Your task to perform on an android device: Open the calendar app, open the side menu, and click the "Day" option Image 0: 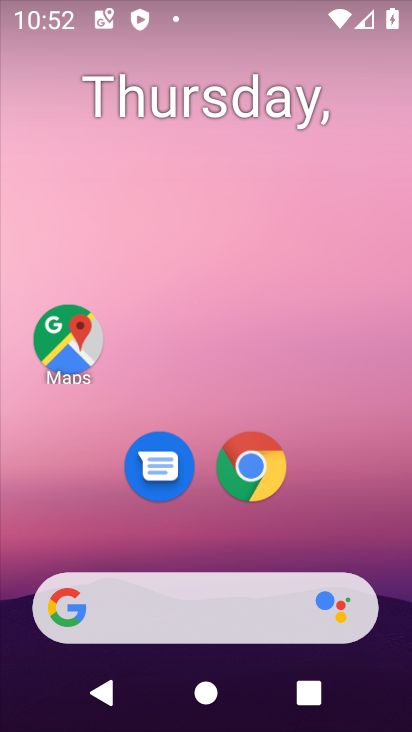
Step 0: drag from (213, 554) to (188, 0)
Your task to perform on an android device: Open the calendar app, open the side menu, and click the "Day" option Image 1: 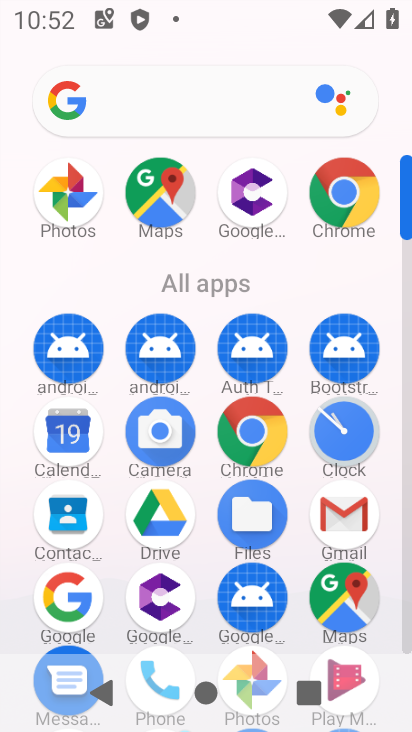
Step 1: click (89, 458)
Your task to perform on an android device: Open the calendar app, open the side menu, and click the "Day" option Image 2: 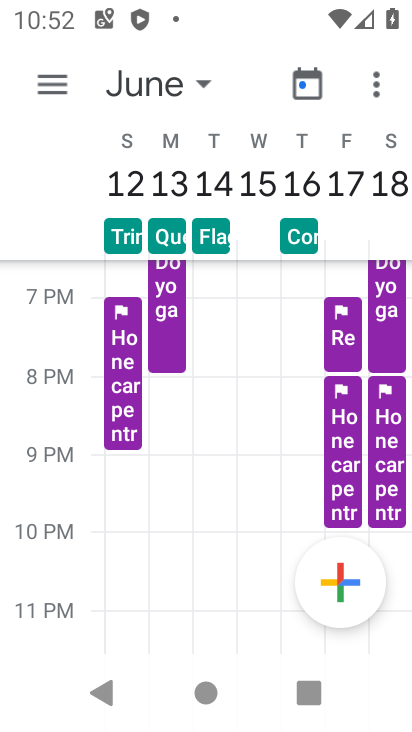
Step 2: click (61, 82)
Your task to perform on an android device: Open the calendar app, open the side menu, and click the "Day" option Image 3: 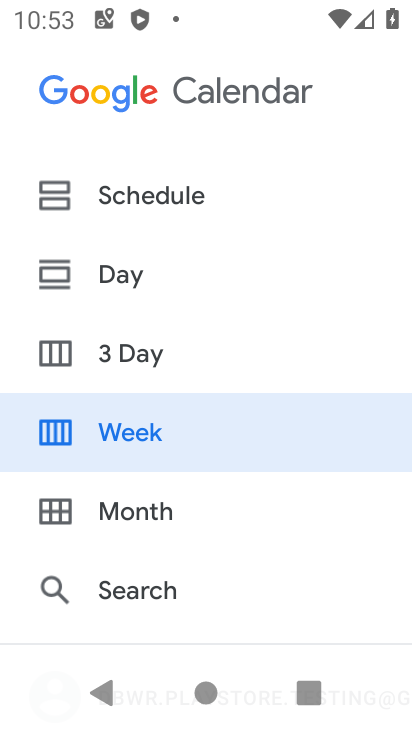
Step 3: click (125, 275)
Your task to perform on an android device: Open the calendar app, open the side menu, and click the "Day" option Image 4: 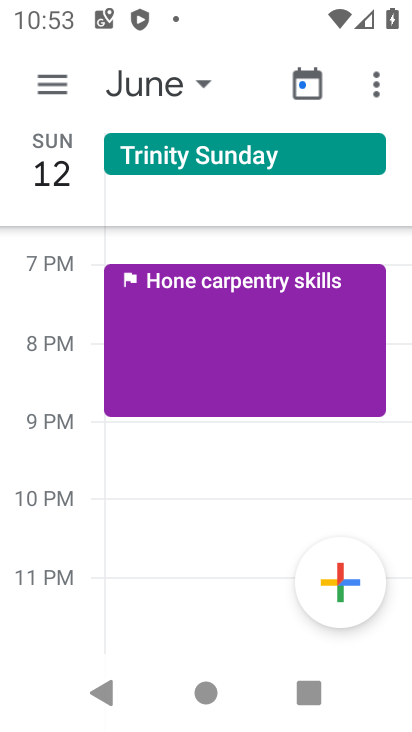
Step 4: click (50, 86)
Your task to perform on an android device: Open the calendar app, open the side menu, and click the "Day" option Image 5: 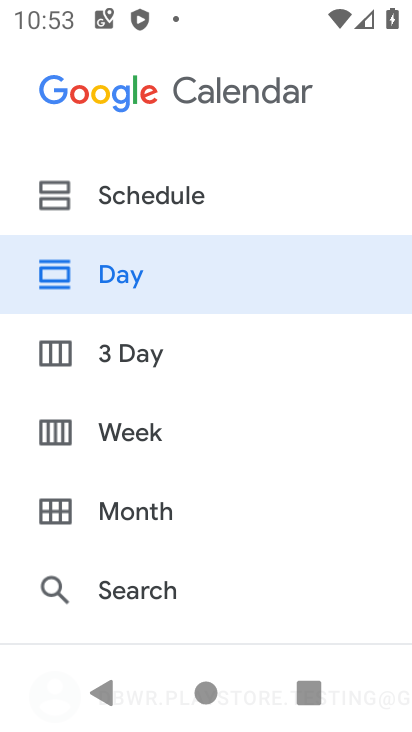
Step 5: click (134, 256)
Your task to perform on an android device: Open the calendar app, open the side menu, and click the "Day" option Image 6: 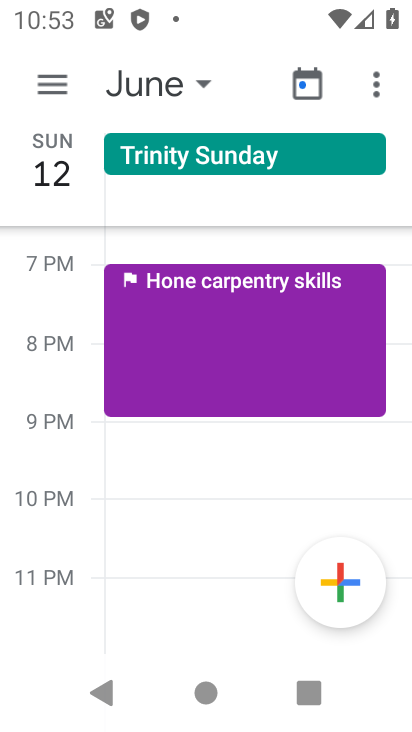
Step 6: task complete